Your task to perform on an android device: Open maps Image 0: 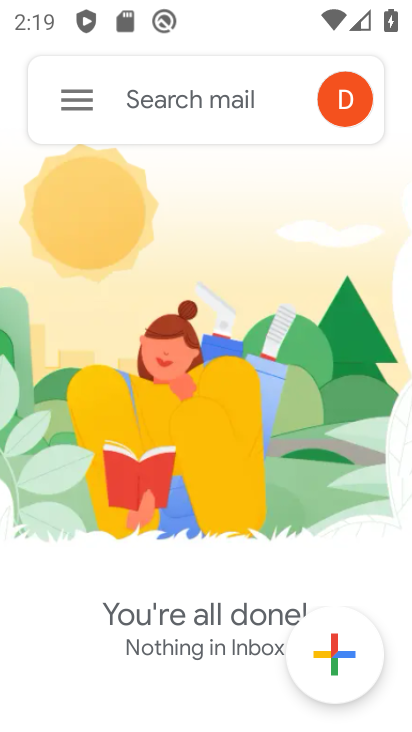
Step 0: press home button
Your task to perform on an android device: Open maps Image 1: 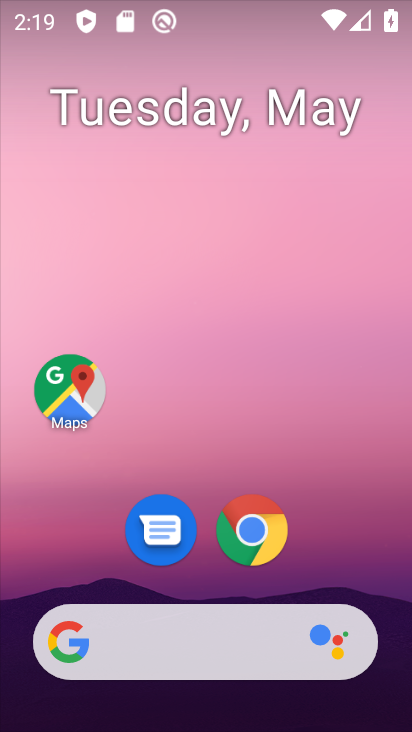
Step 1: click (77, 391)
Your task to perform on an android device: Open maps Image 2: 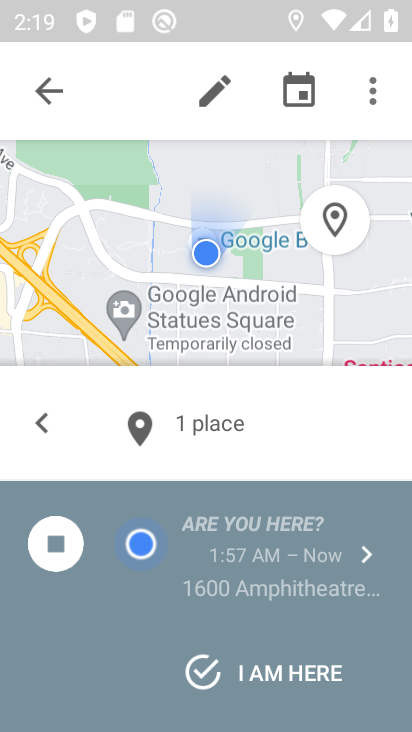
Step 2: click (51, 95)
Your task to perform on an android device: Open maps Image 3: 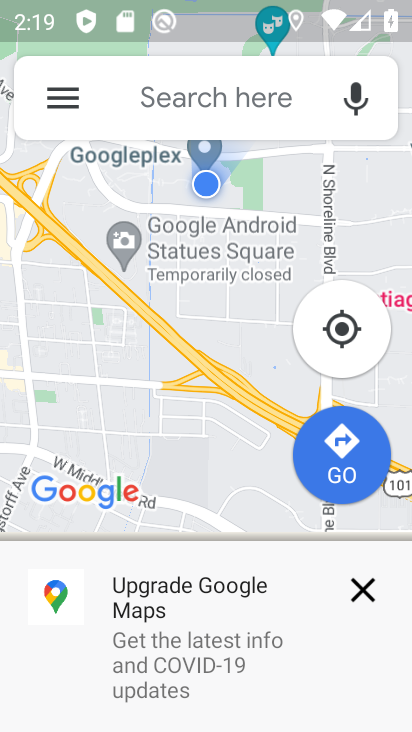
Step 3: task complete